Your task to perform on an android device: turn on translation in the chrome app Image 0: 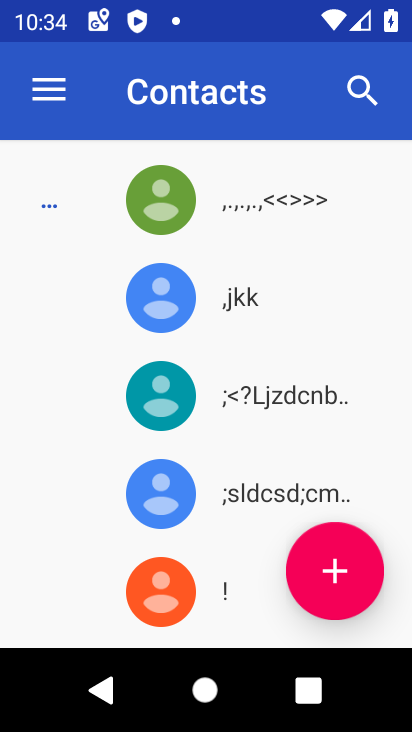
Step 0: press home button
Your task to perform on an android device: turn on translation in the chrome app Image 1: 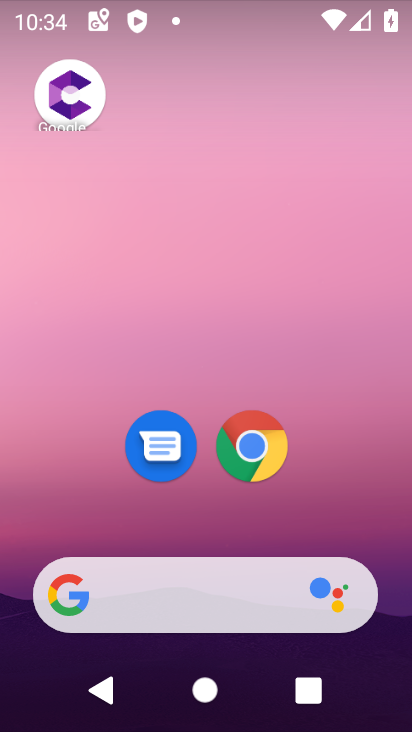
Step 1: drag from (359, 518) to (360, 193)
Your task to perform on an android device: turn on translation in the chrome app Image 2: 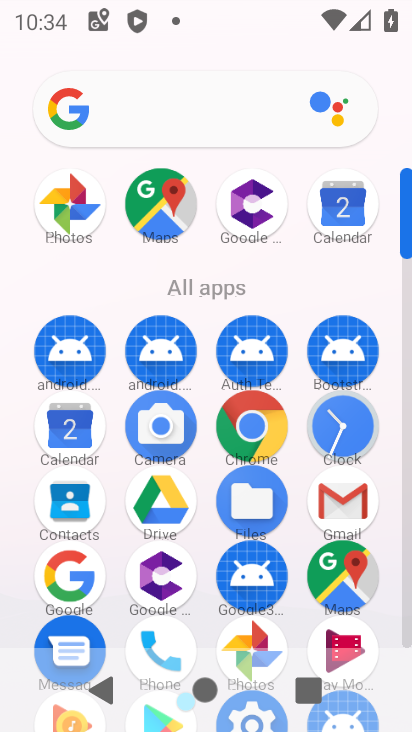
Step 2: click (260, 428)
Your task to perform on an android device: turn on translation in the chrome app Image 3: 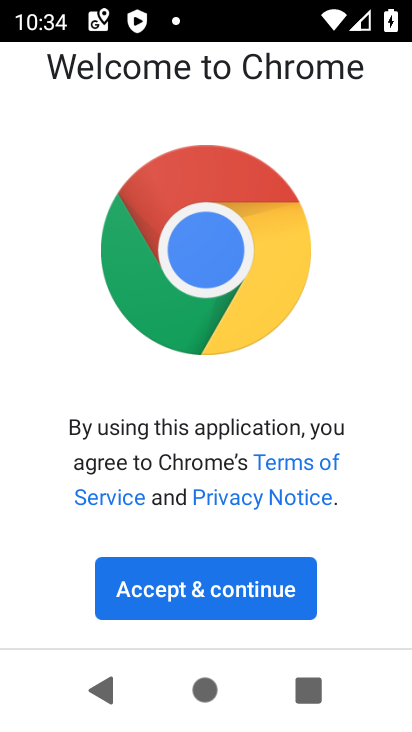
Step 3: click (218, 586)
Your task to perform on an android device: turn on translation in the chrome app Image 4: 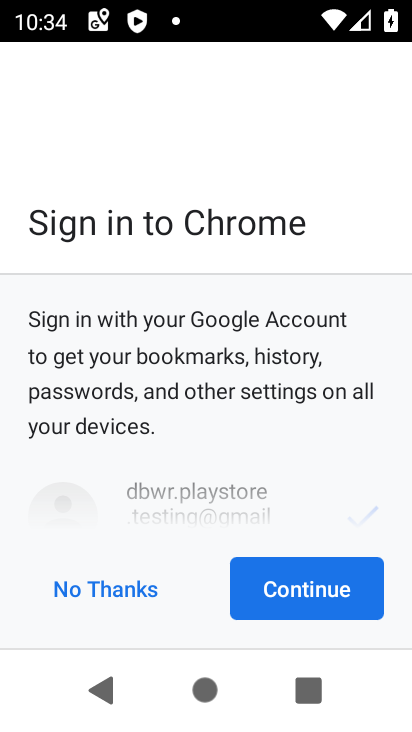
Step 4: click (312, 590)
Your task to perform on an android device: turn on translation in the chrome app Image 5: 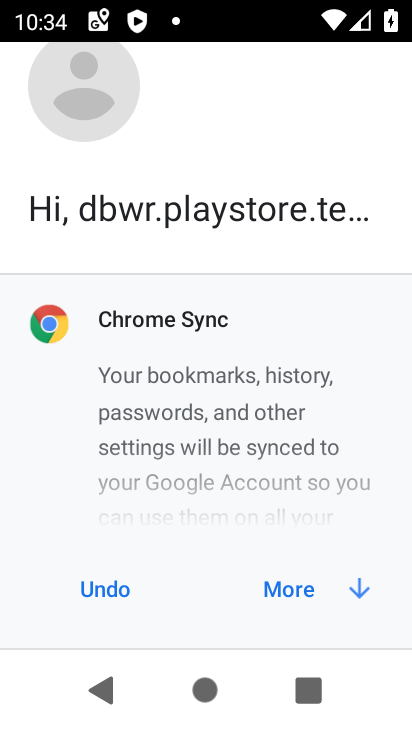
Step 5: click (296, 592)
Your task to perform on an android device: turn on translation in the chrome app Image 6: 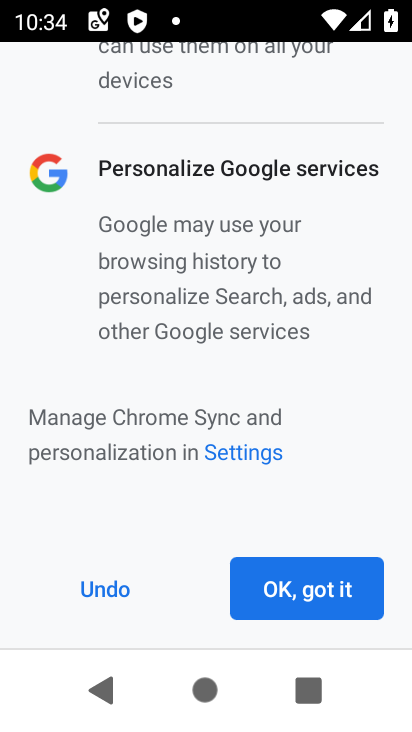
Step 6: click (296, 592)
Your task to perform on an android device: turn on translation in the chrome app Image 7: 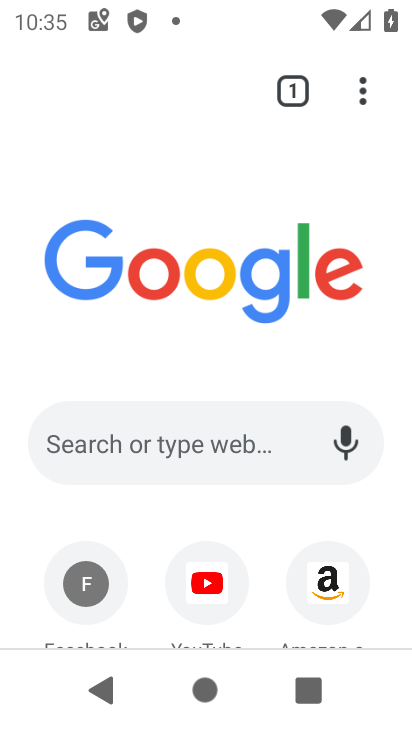
Step 7: click (365, 103)
Your task to perform on an android device: turn on translation in the chrome app Image 8: 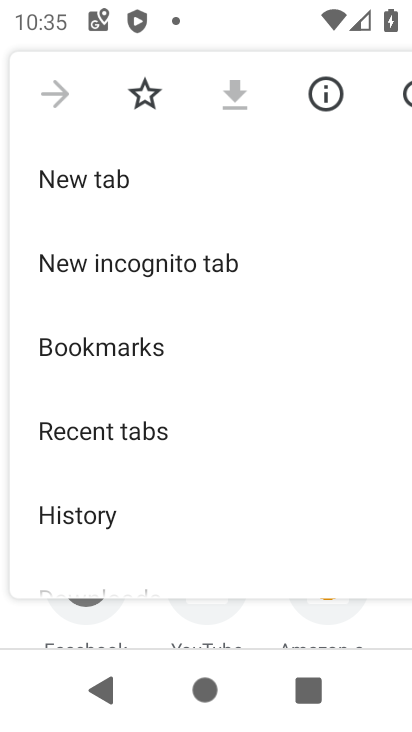
Step 8: drag from (308, 419) to (303, 281)
Your task to perform on an android device: turn on translation in the chrome app Image 9: 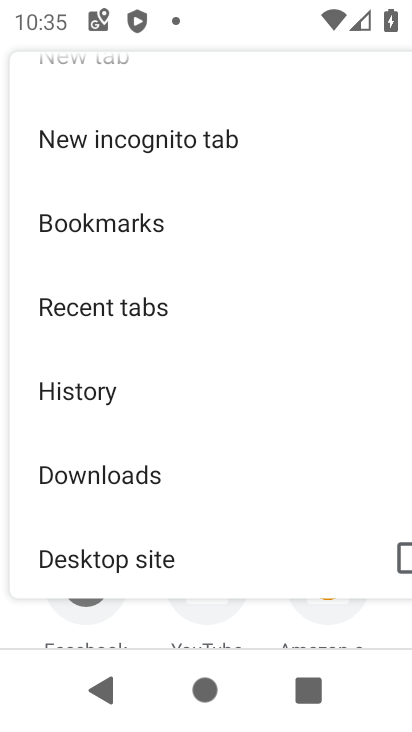
Step 9: drag from (293, 452) to (302, 232)
Your task to perform on an android device: turn on translation in the chrome app Image 10: 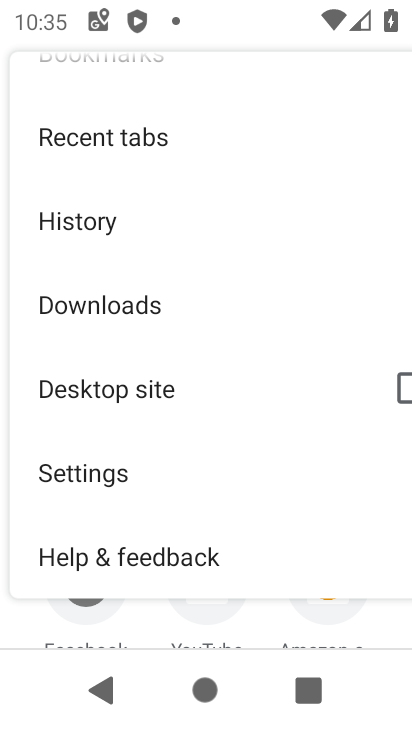
Step 10: click (122, 480)
Your task to perform on an android device: turn on translation in the chrome app Image 11: 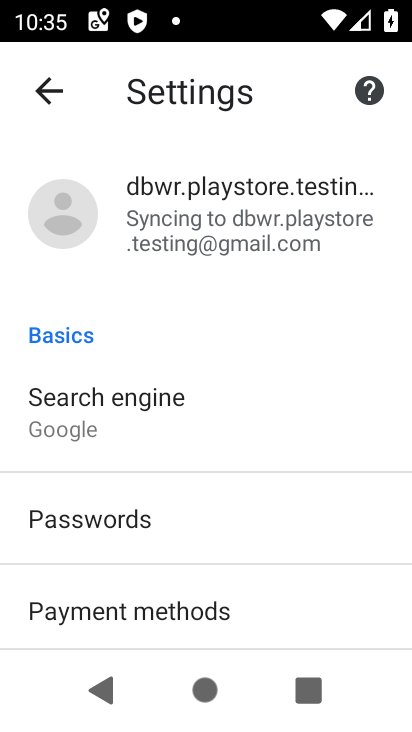
Step 11: drag from (309, 536) to (317, 396)
Your task to perform on an android device: turn on translation in the chrome app Image 12: 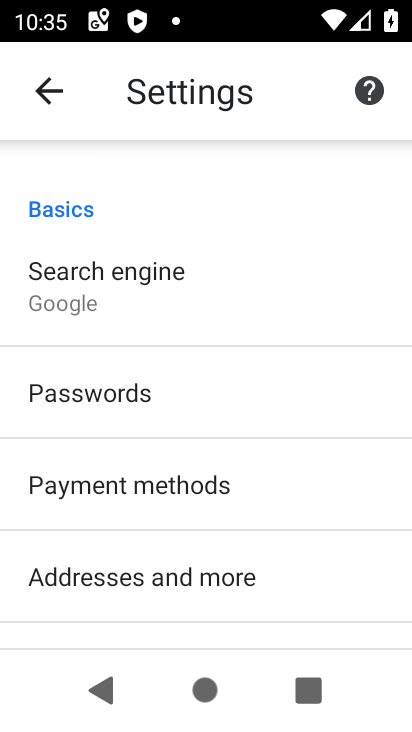
Step 12: drag from (317, 516) to (317, 388)
Your task to perform on an android device: turn on translation in the chrome app Image 13: 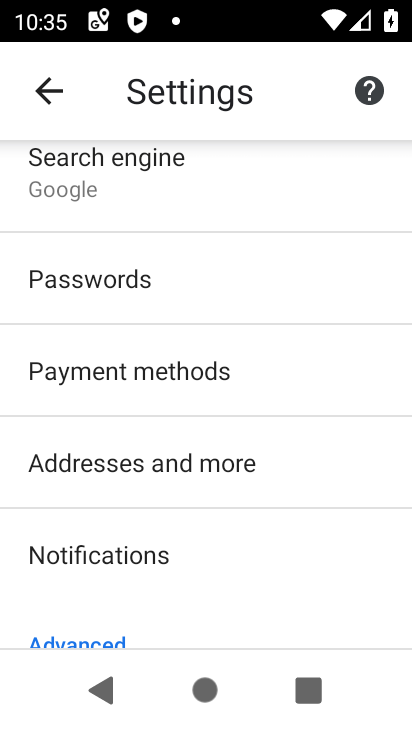
Step 13: drag from (319, 540) to (327, 414)
Your task to perform on an android device: turn on translation in the chrome app Image 14: 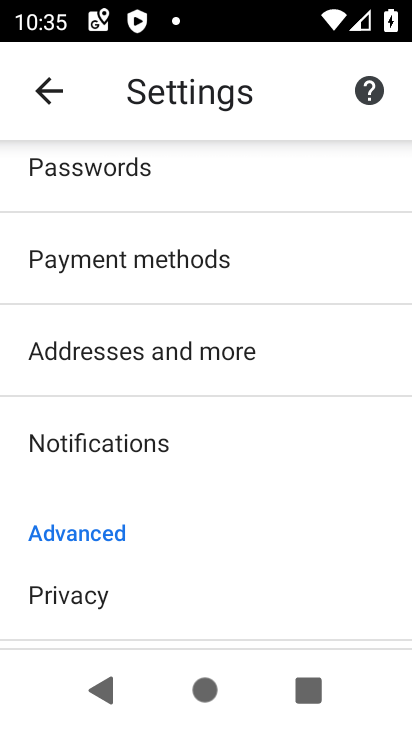
Step 14: drag from (305, 490) to (318, 364)
Your task to perform on an android device: turn on translation in the chrome app Image 15: 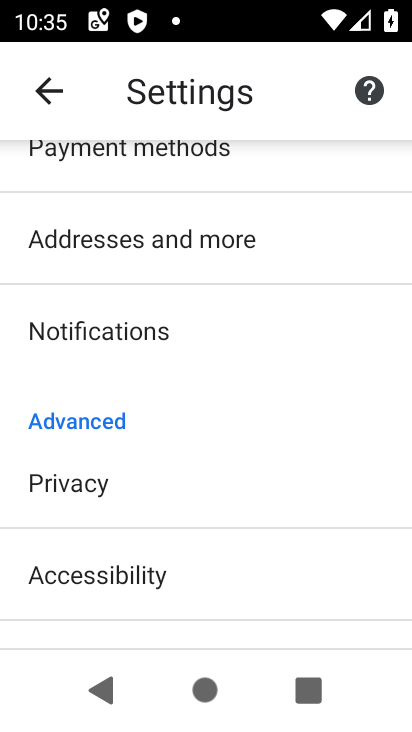
Step 15: drag from (319, 525) to (328, 378)
Your task to perform on an android device: turn on translation in the chrome app Image 16: 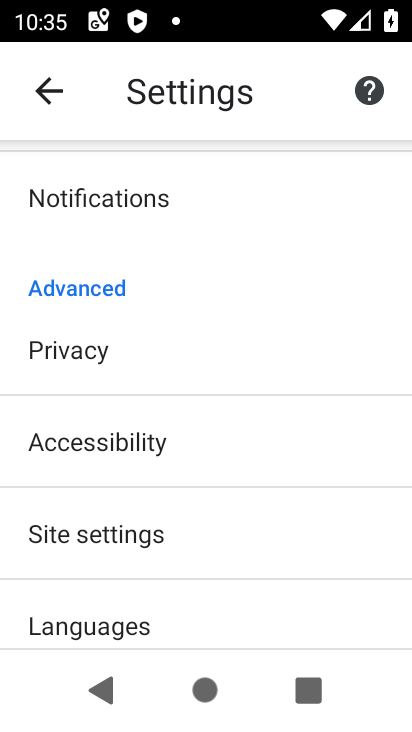
Step 16: drag from (301, 469) to (300, 292)
Your task to perform on an android device: turn on translation in the chrome app Image 17: 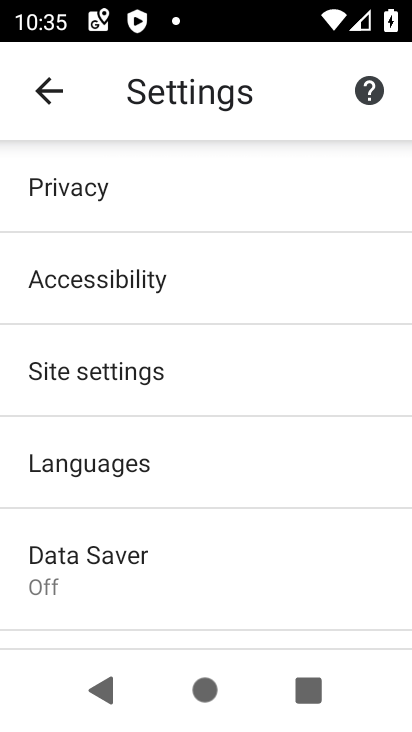
Step 17: drag from (287, 488) to (306, 254)
Your task to perform on an android device: turn on translation in the chrome app Image 18: 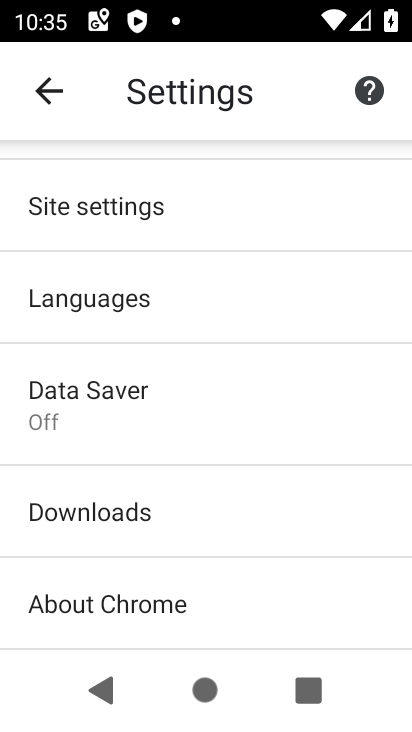
Step 18: click (263, 298)
Your task to perform on an android device: turn on translation in the chrome app Image 19: 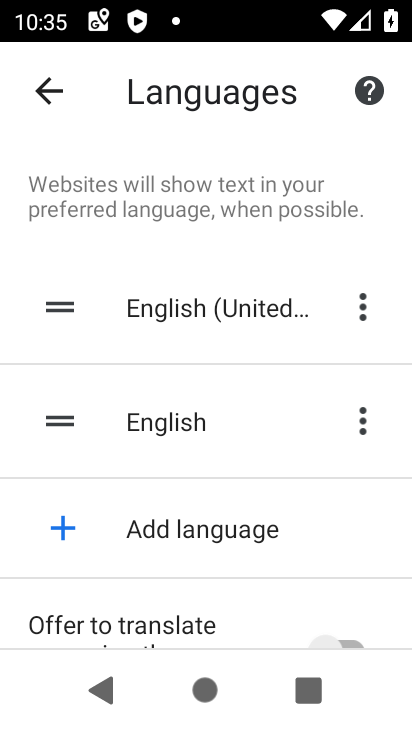
Step 19: drag from (289, 441) to (302, 281)
Your task to perform on an android device: turn on translation in the chrome app Image 20: 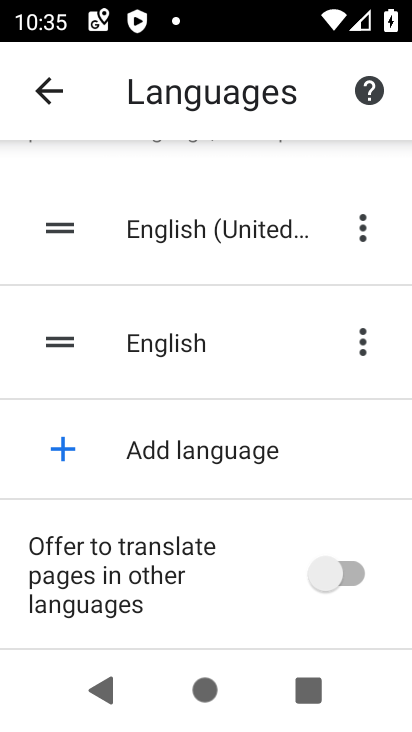
Step 20: click (330, 587)
Your task to perform on an android device: turn on translation in the chrome app Image 21: 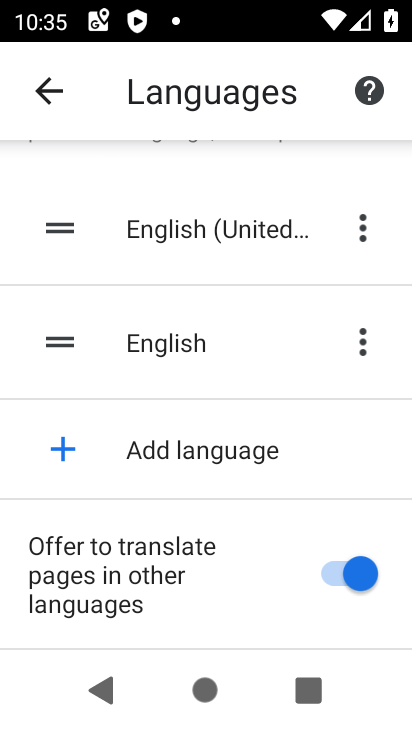
Step 21: task complete